Your task to perform on an android device: open app "Google Pay: Save, Pay, Manage" Image 0: 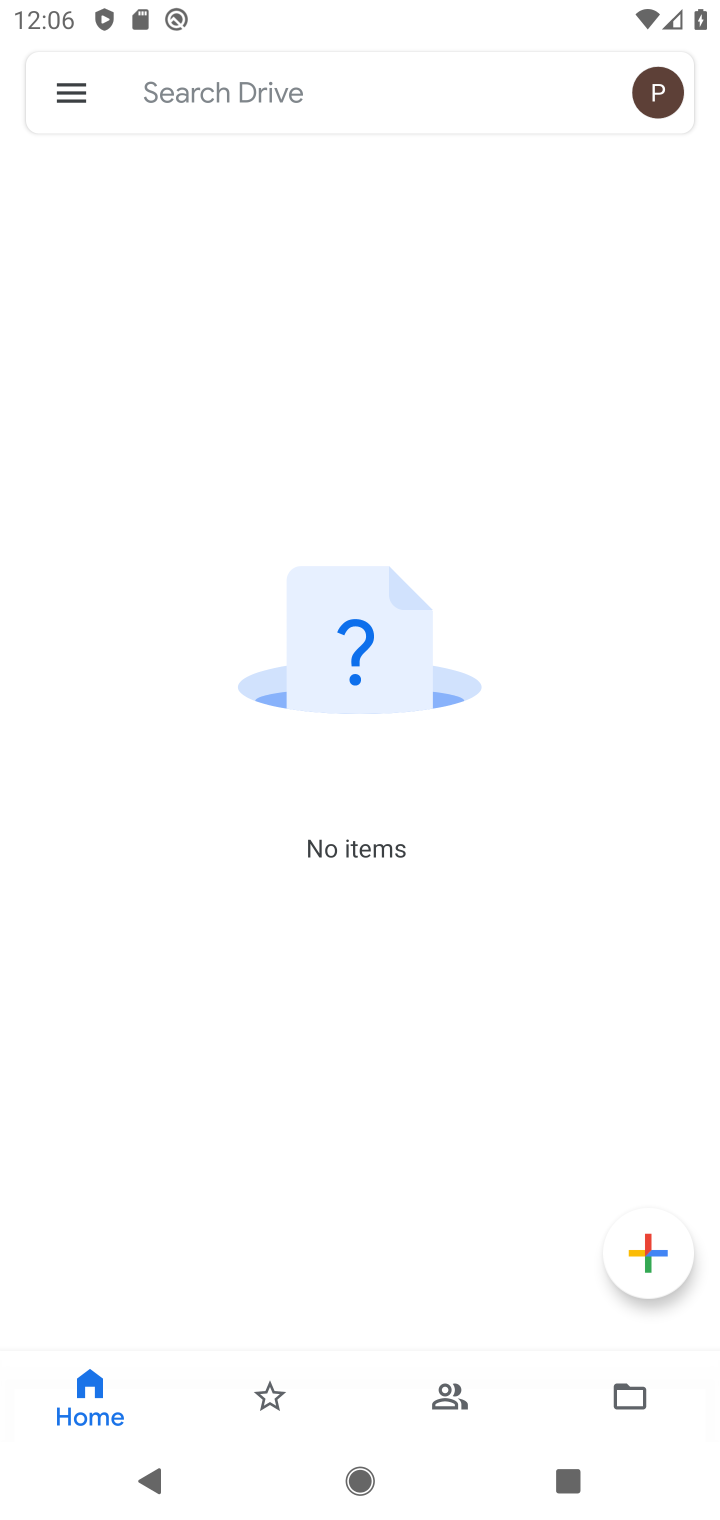
Step 0: press home button
Your task to perform on an android device: open app "Google Pay: Save, Pay, Manage" Image 1: 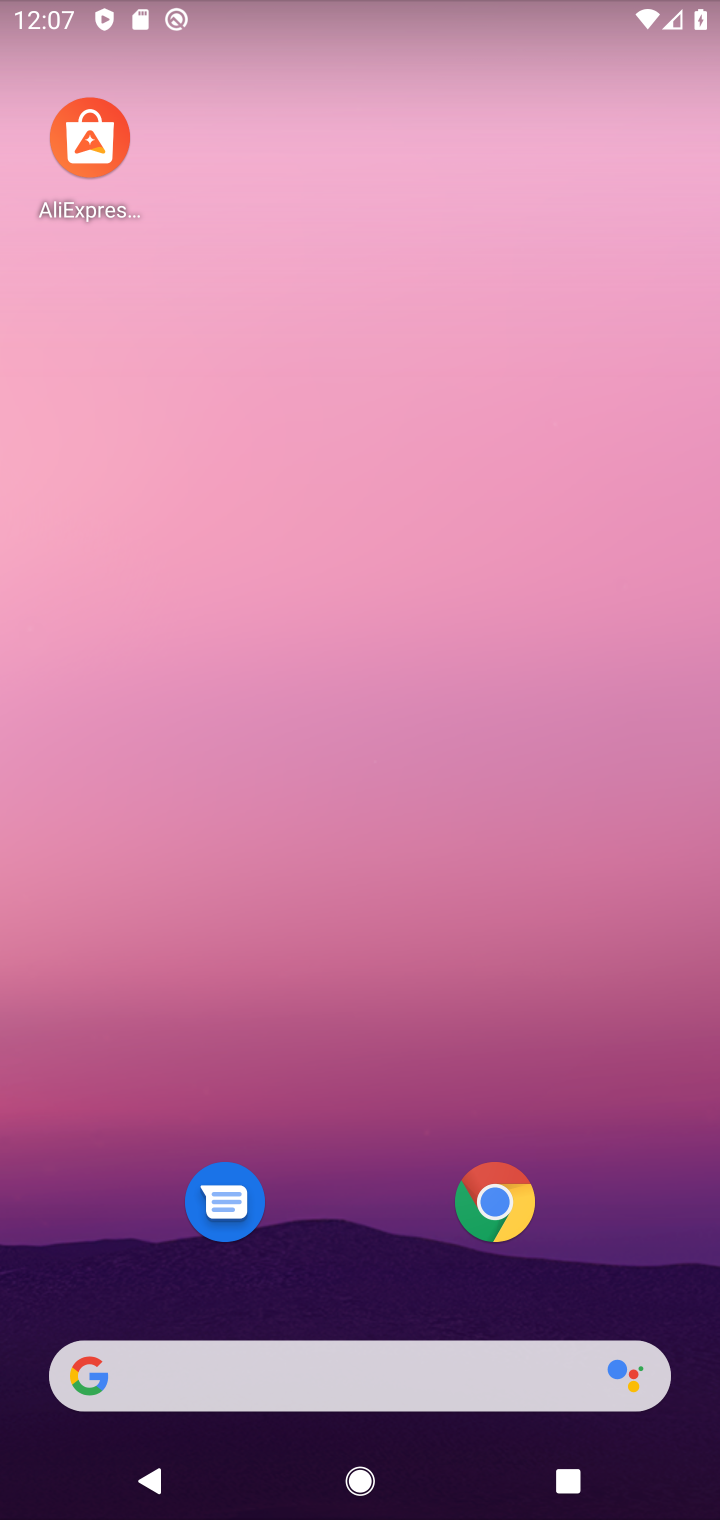
Step 1: drag from (455, 1021) to (443, 73)
Your task to perform on an android device: open app "Google Pay: Save, Pay, Manage" Image 2: 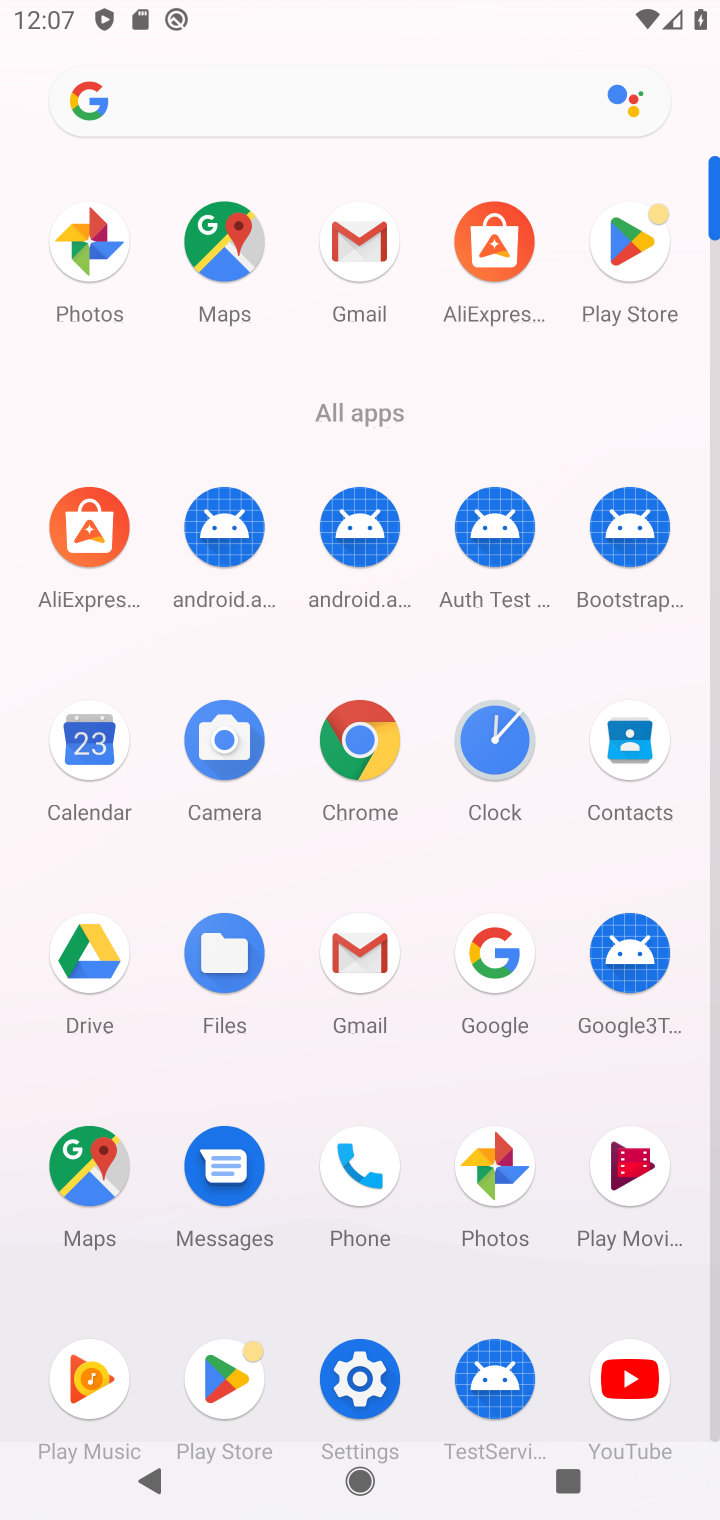
Step 2: click (206, 1394)
Your task to perform on an android device: open app "Google Pay: Save, Pay, Manage" Image 3: 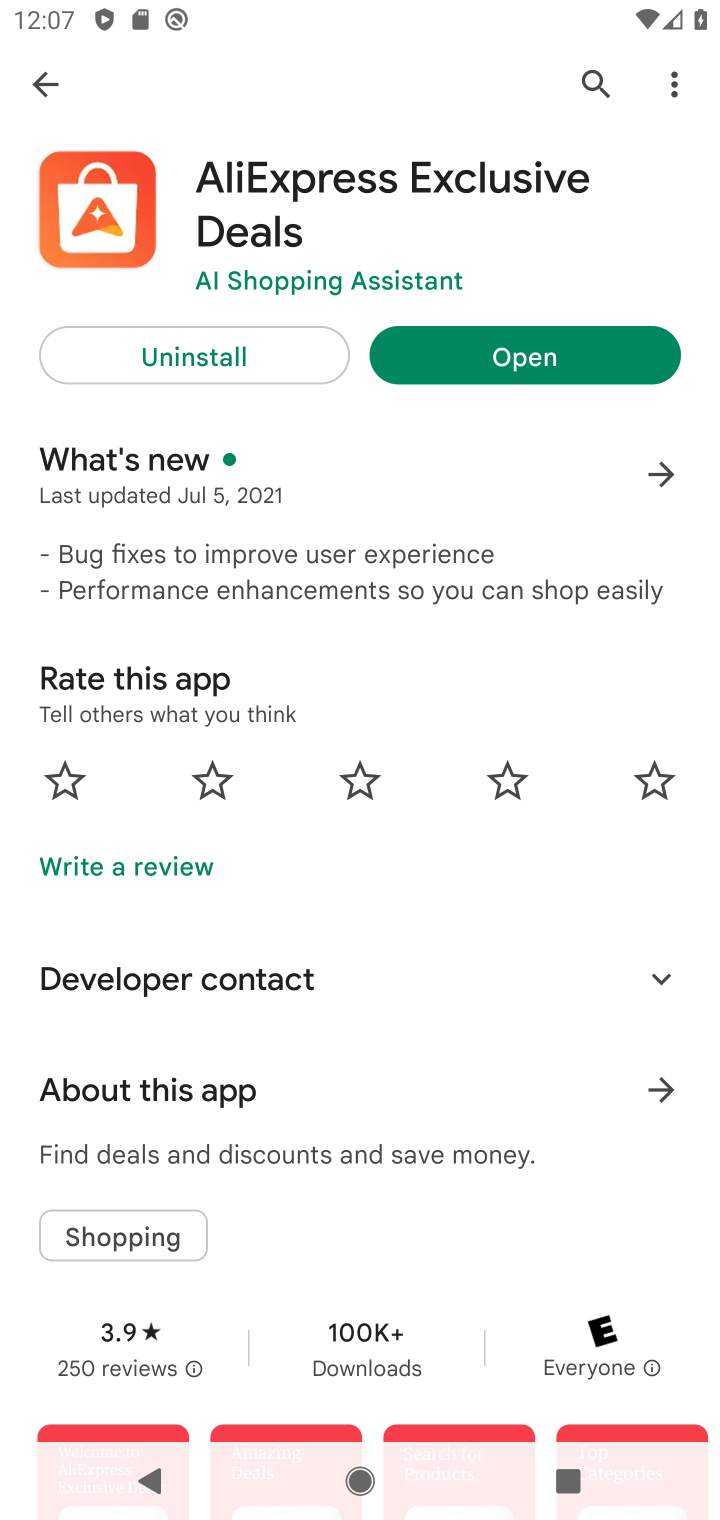
Step 3: click (594, 75)
Your task to perform on an android device: open app "Google Pay: Save, Pay, Manage" Image 4: 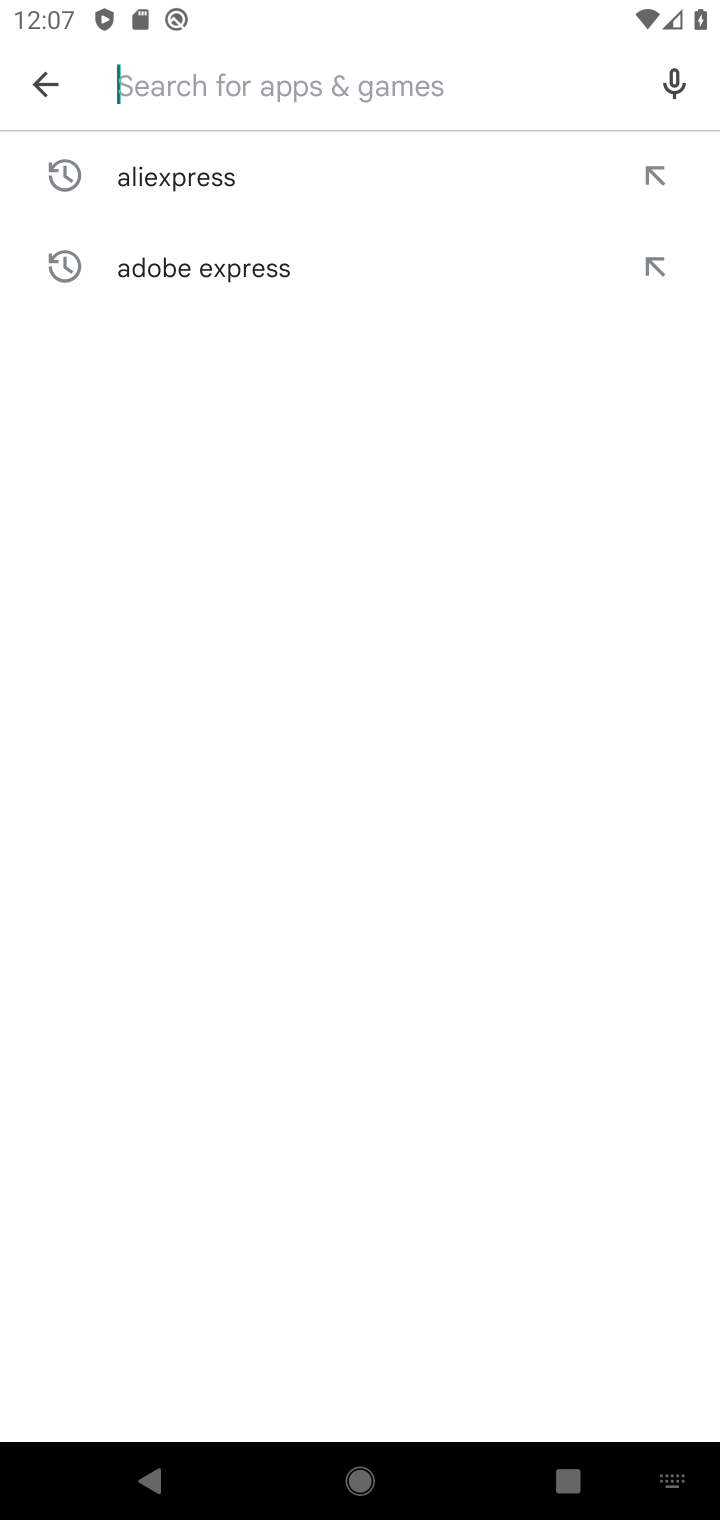
Step 4: type "google pay"
Your task to perform on an android device: open app "Google Pay: Save, Pay, Manage" Image 5: 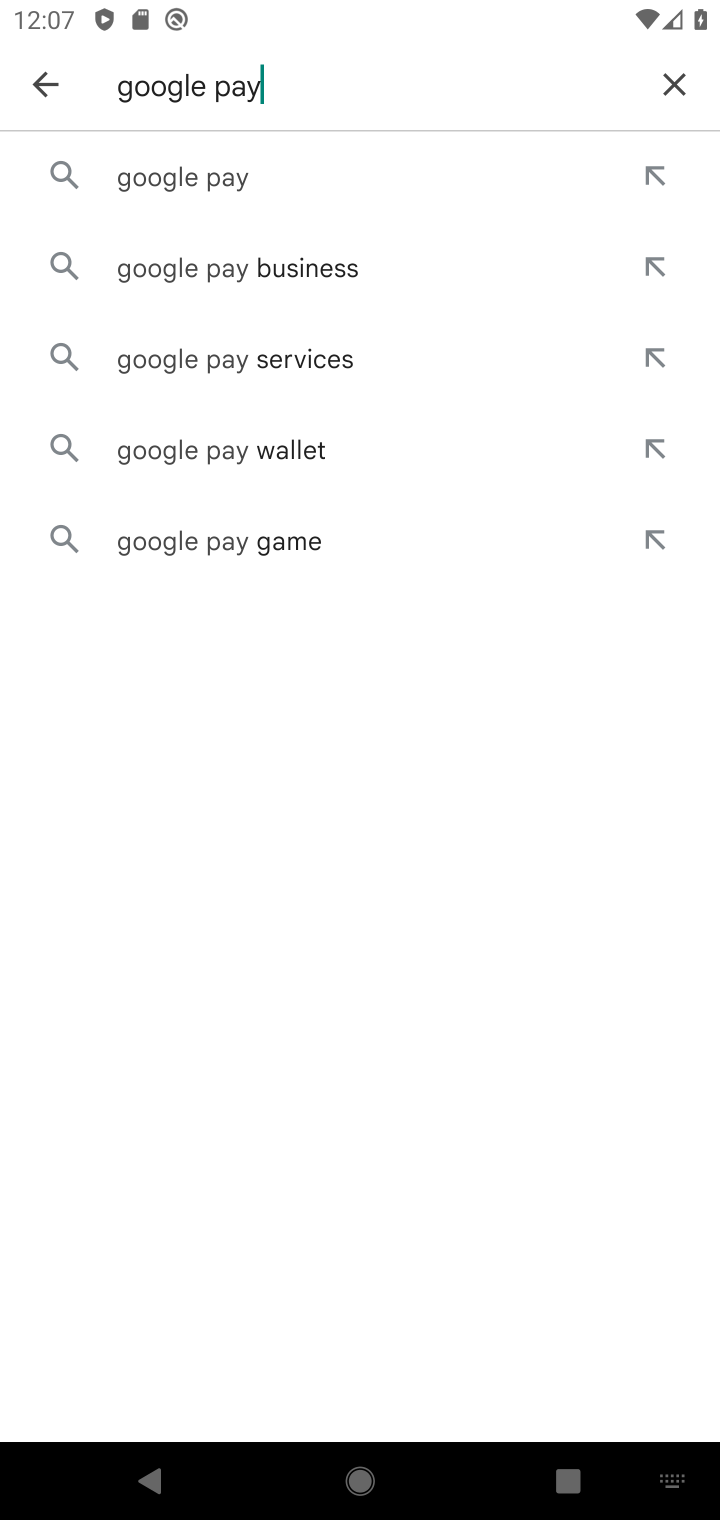
Step 5: click (204, 169)
Your task to perform on an android device: open app "Google Pay: Save, Pay, Manage" Image 6: 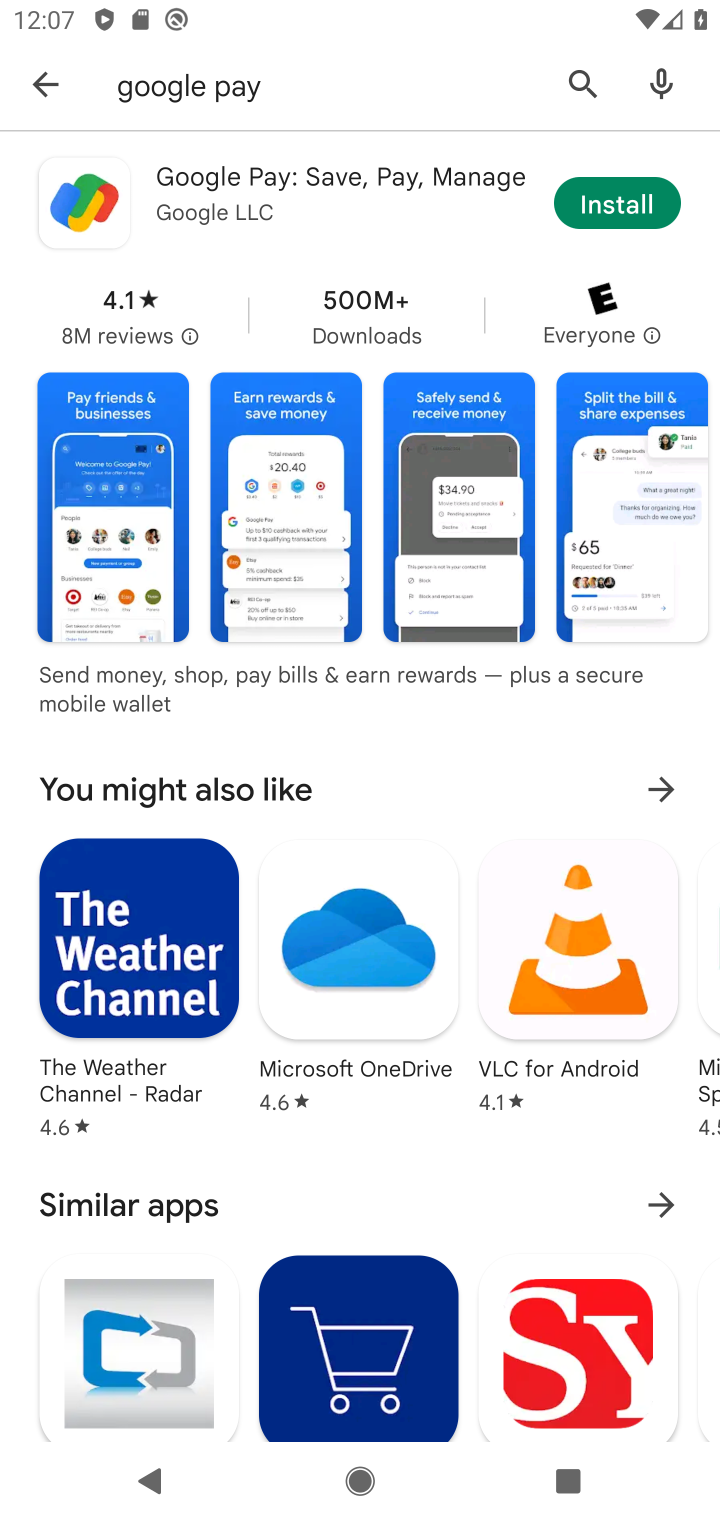
Step 6: task complete